Your task to perform on an android device: turn on priority inbox in the gmail app Image 0: 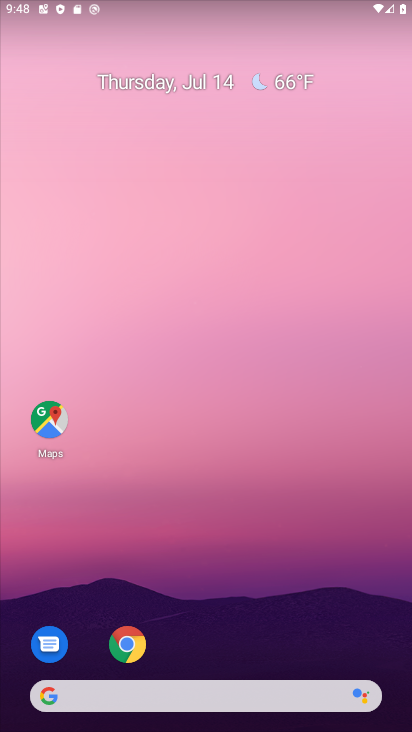
Step 0: click (176, 238)
Your task to perform on an android device: turn on priority inbox in the gmail app Image 1: 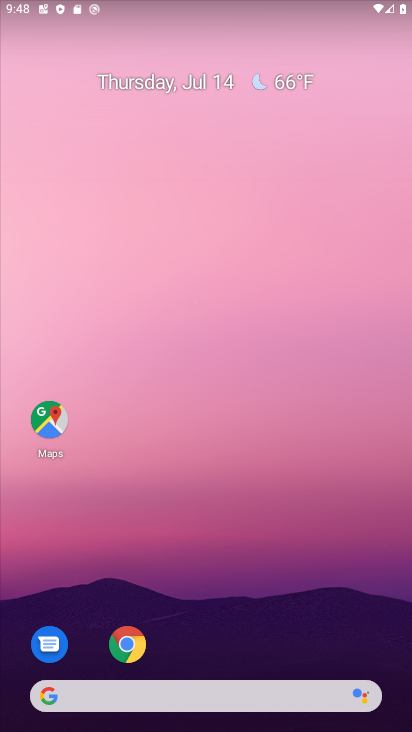
Step 1: drag from (237, 649) to (138, 121)
Your task to perform on an android device: turn on priority inbox in the gmail app Image 2: 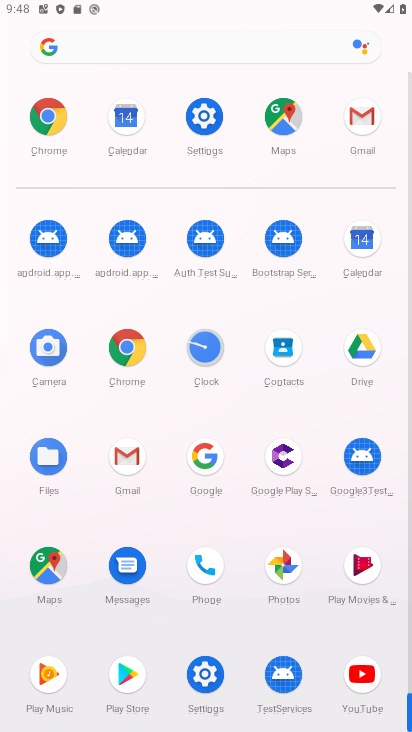
Step 2: click (127, 463)
Your task to perform on an android device: turn on priority inbox in the gmail app Image 3: 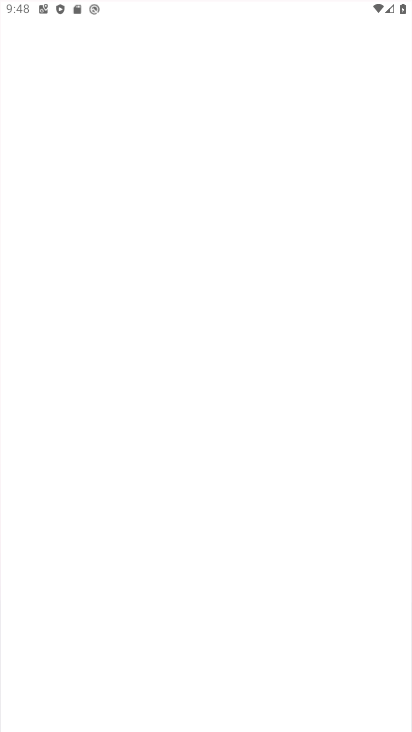
Step 3: click (127, 455)
Your task to perform on an android device: turn on priority inbox in the gmail app Image 4: 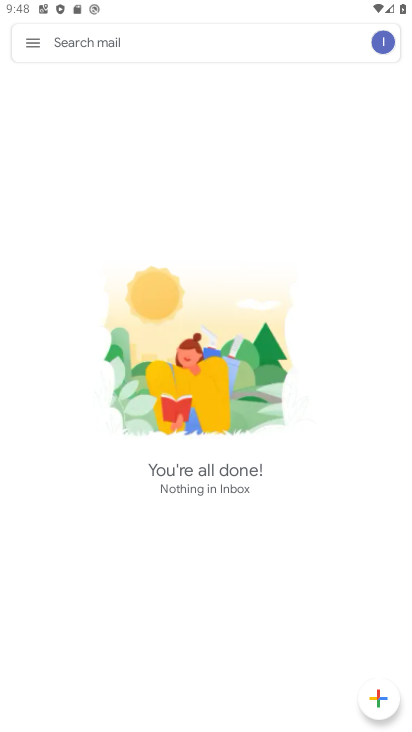
Step 4: drag from (30, 34) to (55, 446)
Your task to perform on an android device: turn on priority inbox in the gmail app Image 5: 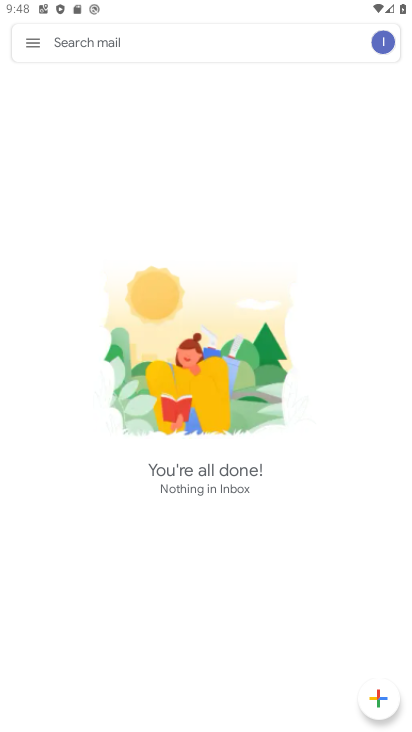
Step 5: click (30, 34)
Your task to perform on an android device: turn on priority inbox in the gmail app Image 6: 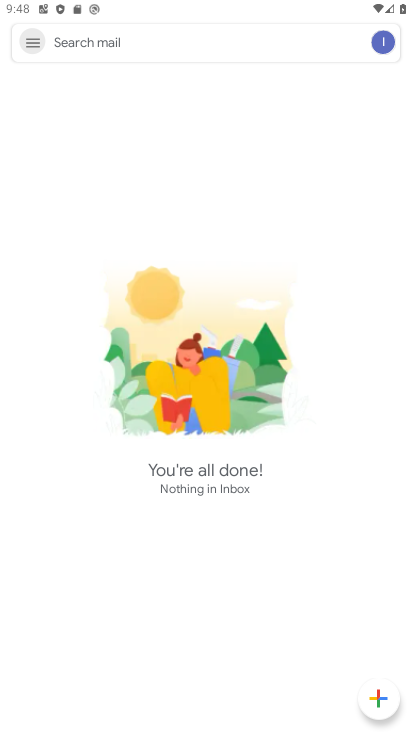
Step 6: click (30, 34)
Your task to perform on an android device: turn on priority inbox in the gmail app Image 7: 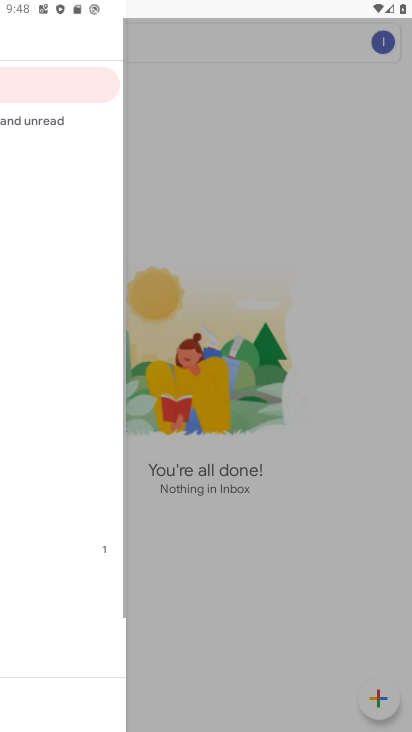
Step 7: drag from (33, 38) to (88, 651)
Your task to perform on an android device: turn on priority inbox in the gmail app Image 8: 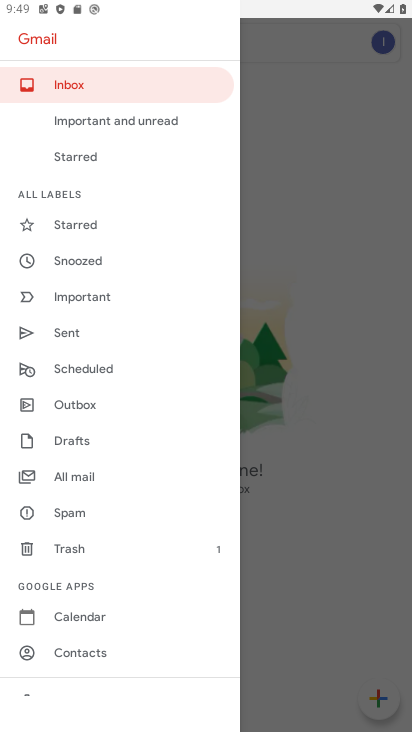
Step 8: drag from (73, 613) to (31, 411)
Your task to perform on an android device: turn on priority inbox in the gmail app Image 9: 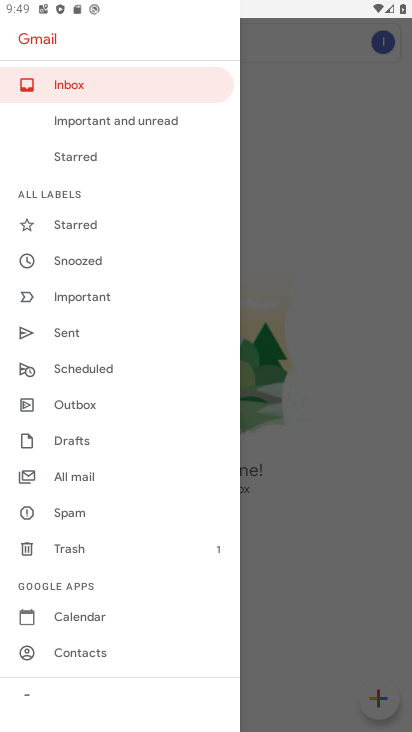
Step 9: drag from (85, 604) to (98, 177)
Your task to perform on an android device: turn on priority inbox in the gmail app Image 10: 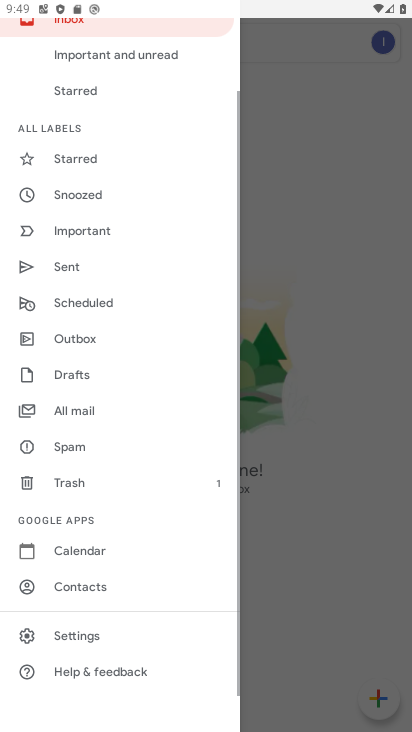
Step 10: click (65, 633)
Your task to perform on an android device: turn on priority inbox in the gmail app Image 11: 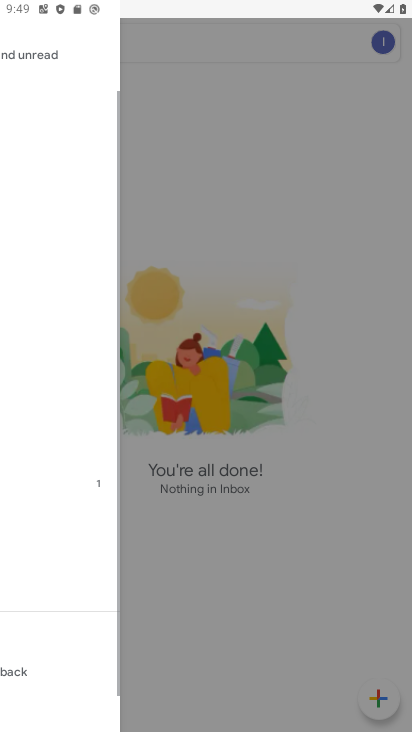
Step 11: click (67, 629)
Your task to perform on an android device: turn on priority inbox in the gmail app Image 12: 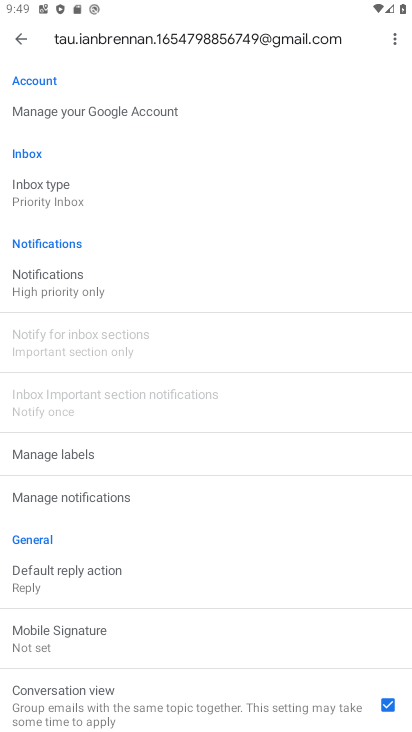
Step 12: click (53, 200)
Your task to perform on an android device: turn on priority inbox in the gmail app Image 13: 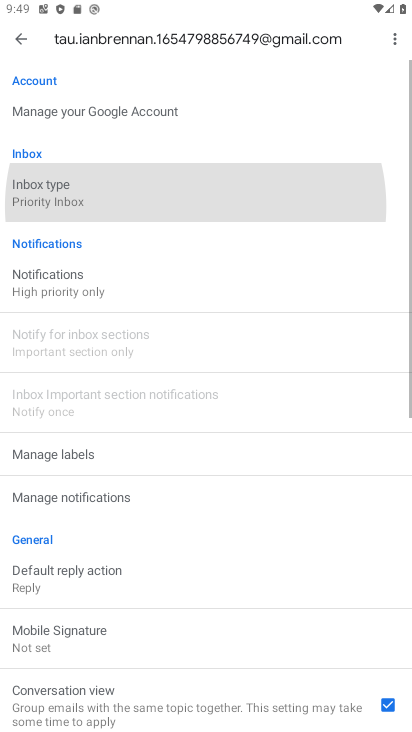
Step 13: click (52, 200)
Your task to perform on an android device: turn on priority inbox in the gmail app Image 14: 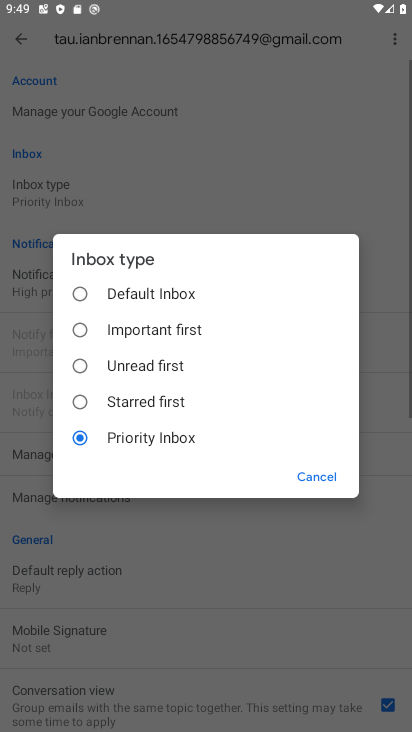
Step 14: click (323, 465)
Your task to perform on an android device: turn on priority inbox in the gmail app Image 15: 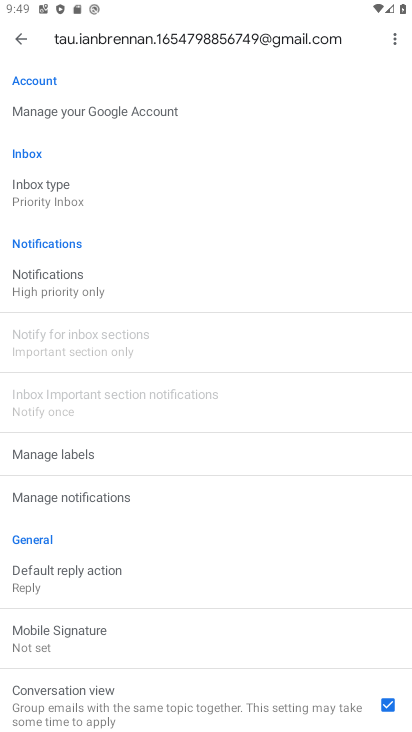
Step 15: task complete